Your task to perform on an android device: set an alarm Image 0: 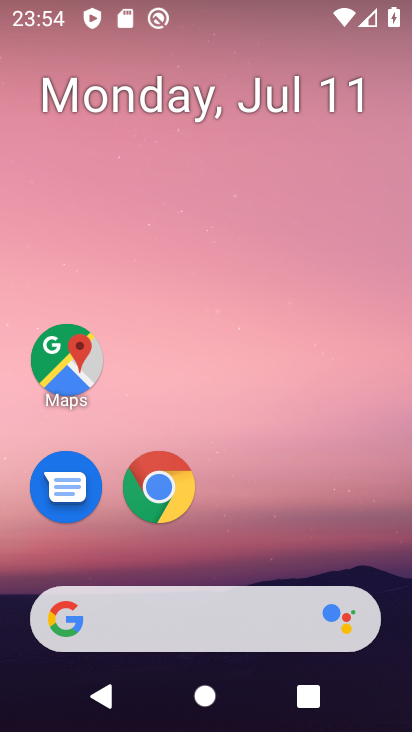
Step 0: drag from (349, 553) to (327, 157)
Your task to perform on an android device: set an alarm Image 1: 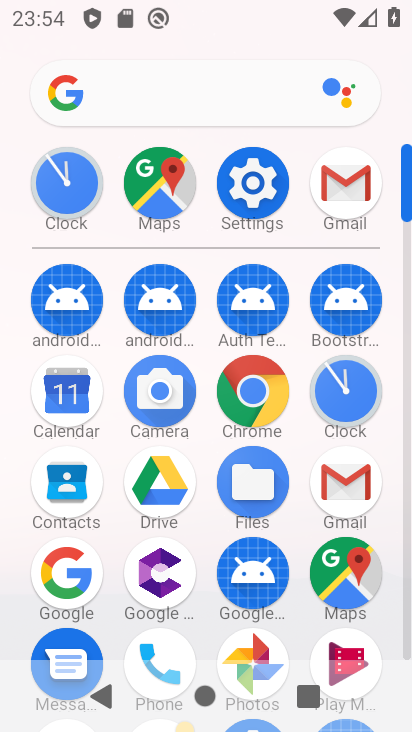
Step 1: click (355, 388)
Your task to perform on an android device: set an alarm Image 2: 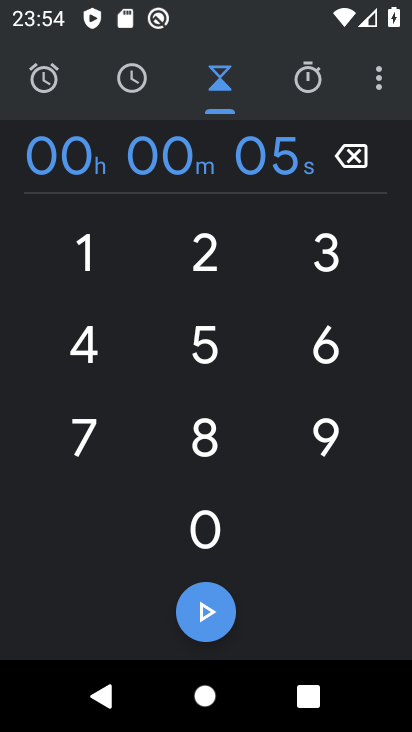
Step 2: click (46, 76)
Your task to perform on an android device: set an alarm Image 3: 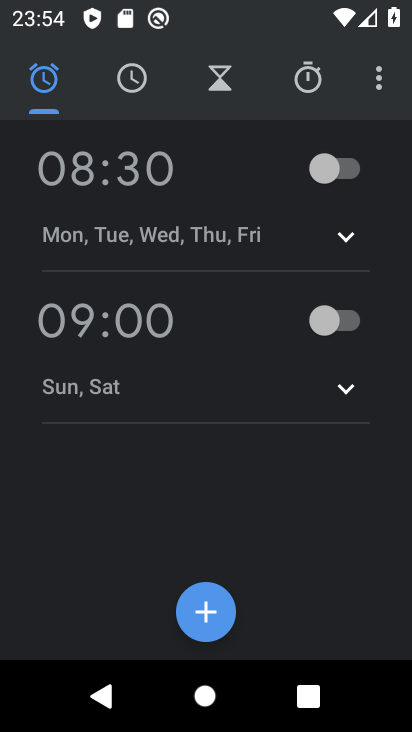
Step 3: click (227, 604)
Your task to perform on an android device: set an alarm Image 4: 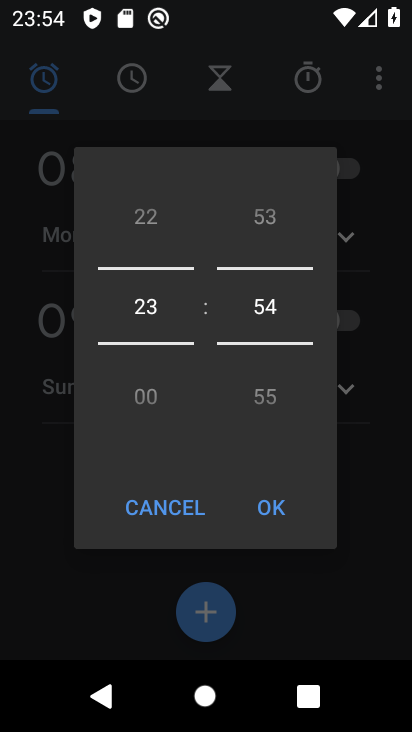
Step 4: click (274, 514)
Your task to perform on an android device: set an alarm Image 5: 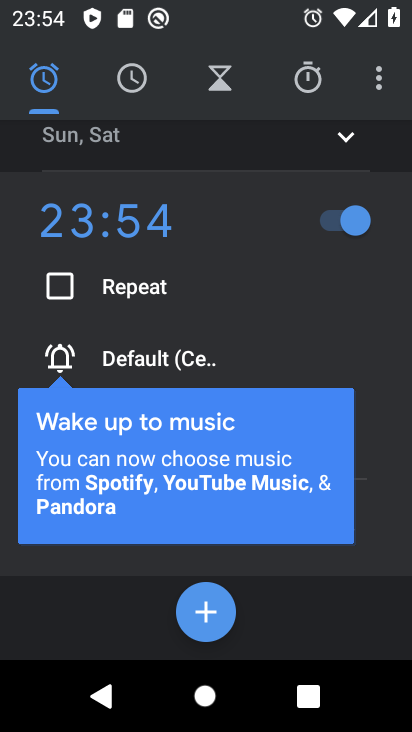
Step 5: task complete